Your task to perform on an android device: delete location history Image 0: 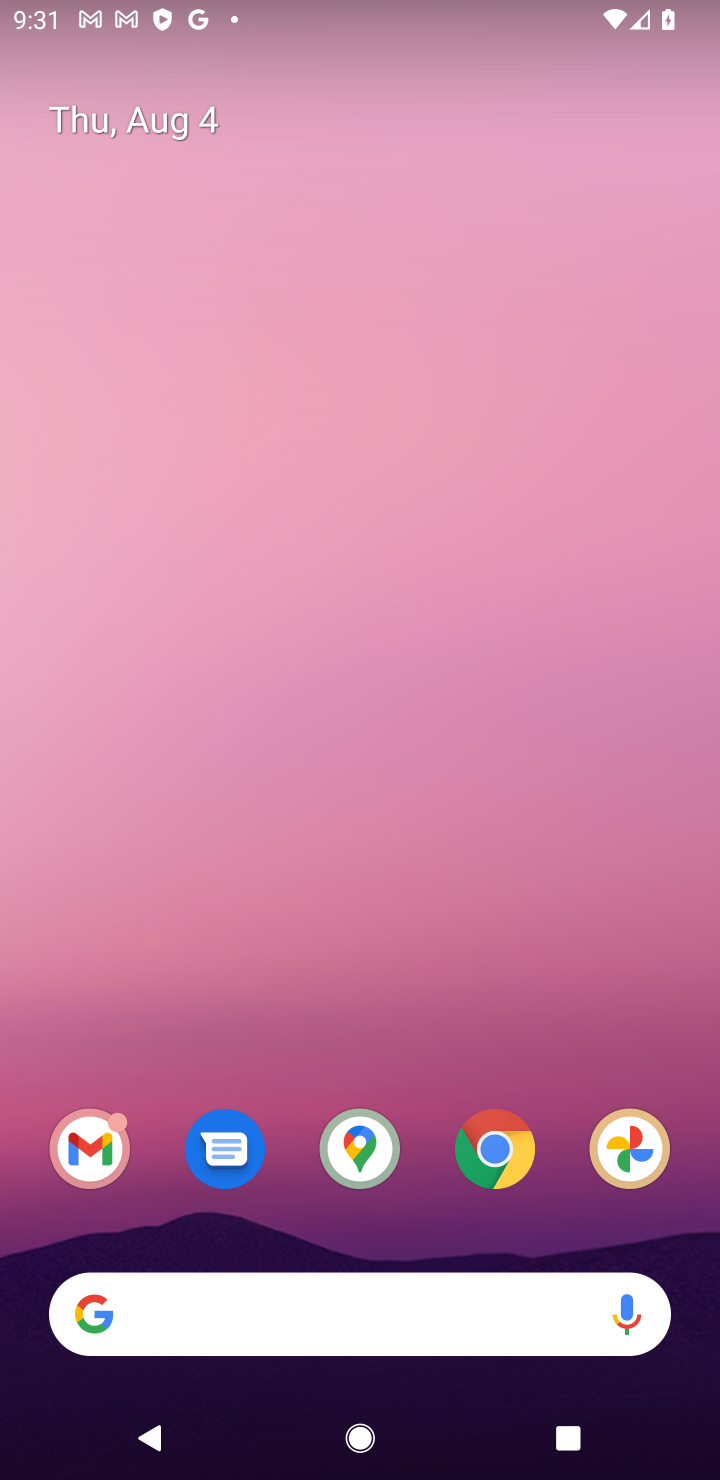
Step 0: click (361, 1149)
Your task to perform on an android device: delete location history Image 1: 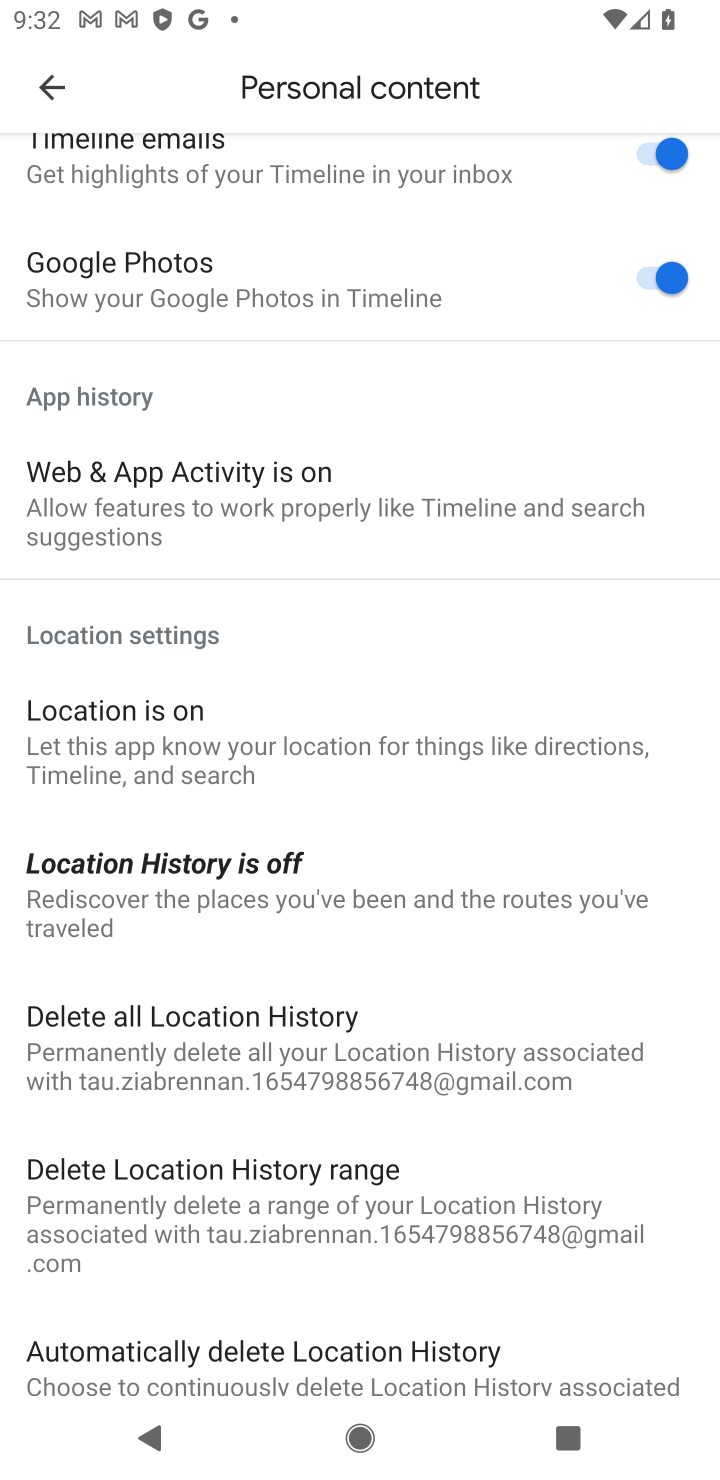
Step 1: click (92, 1005)
Your task to perform on an android device: delete location history Image 2: 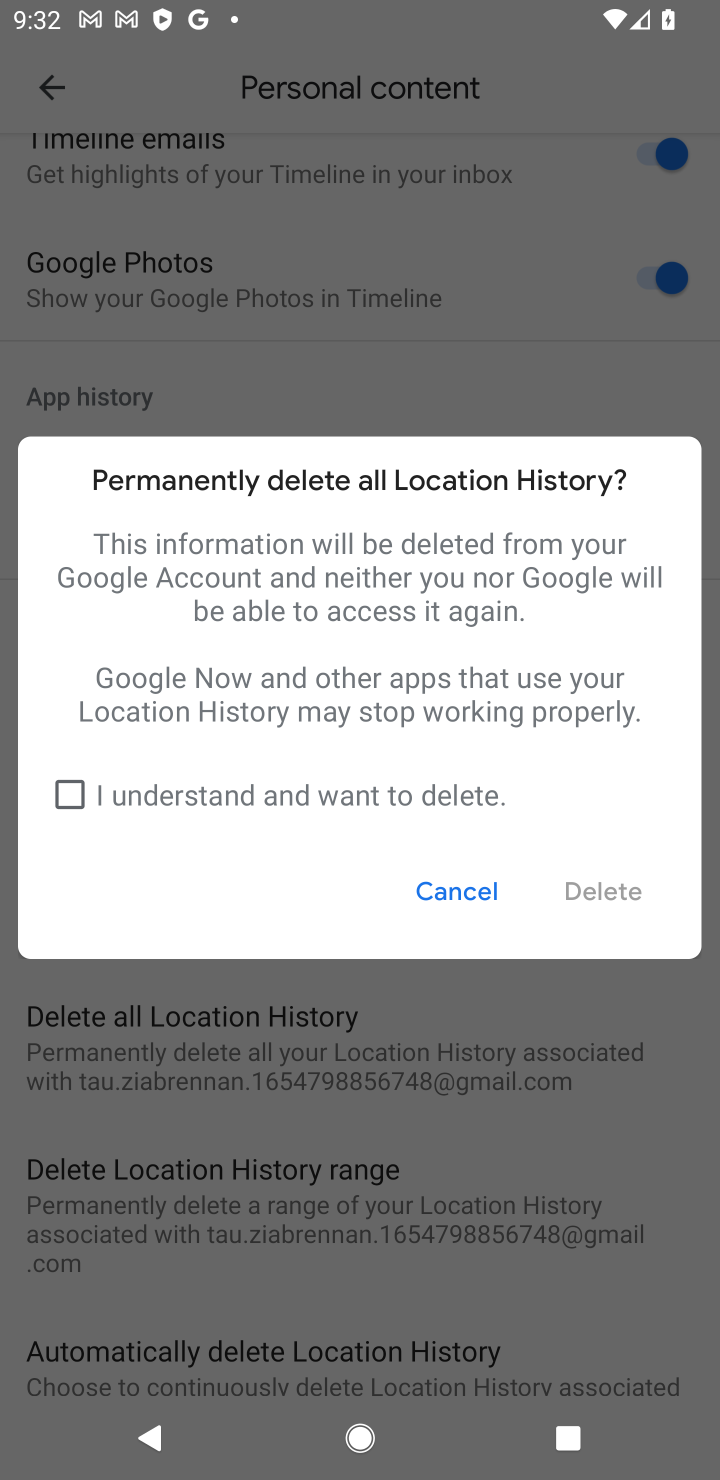
Step 2: click (50, 782)
Your task to perform on an android device: delete location history Image 3: 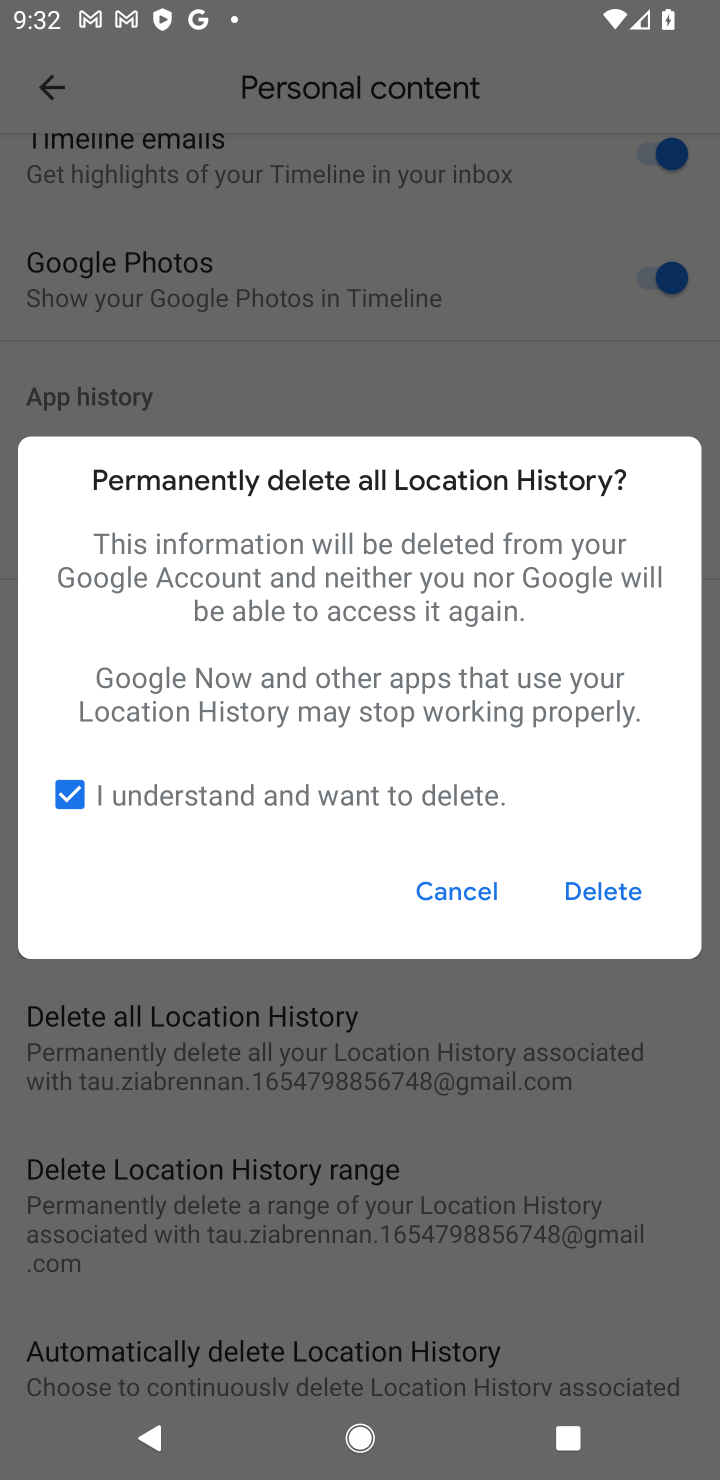
Step 3: click (596, 900)
Your task to perform on an android device: delete location history Image 4: 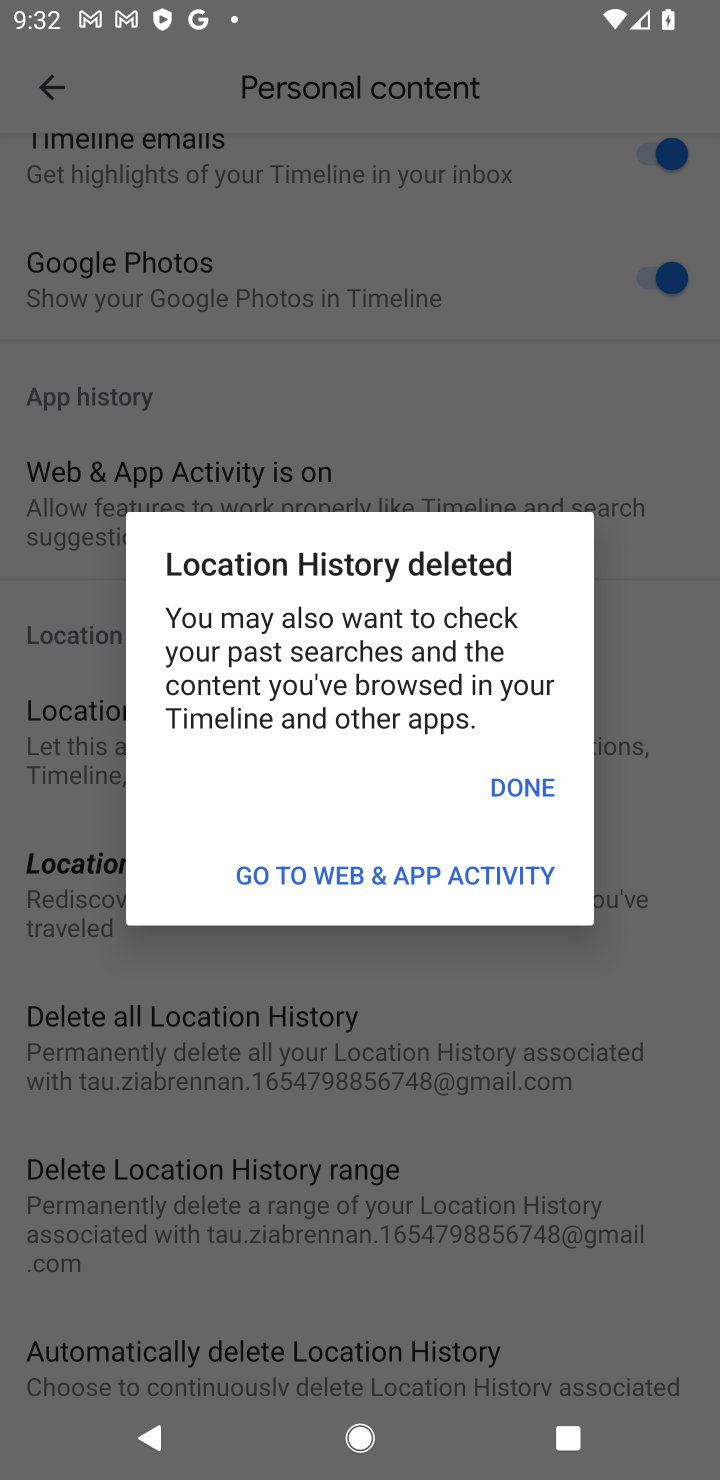
Step 4: click (512, 777)
Your task to perform on an android device: delete location history Image 5: 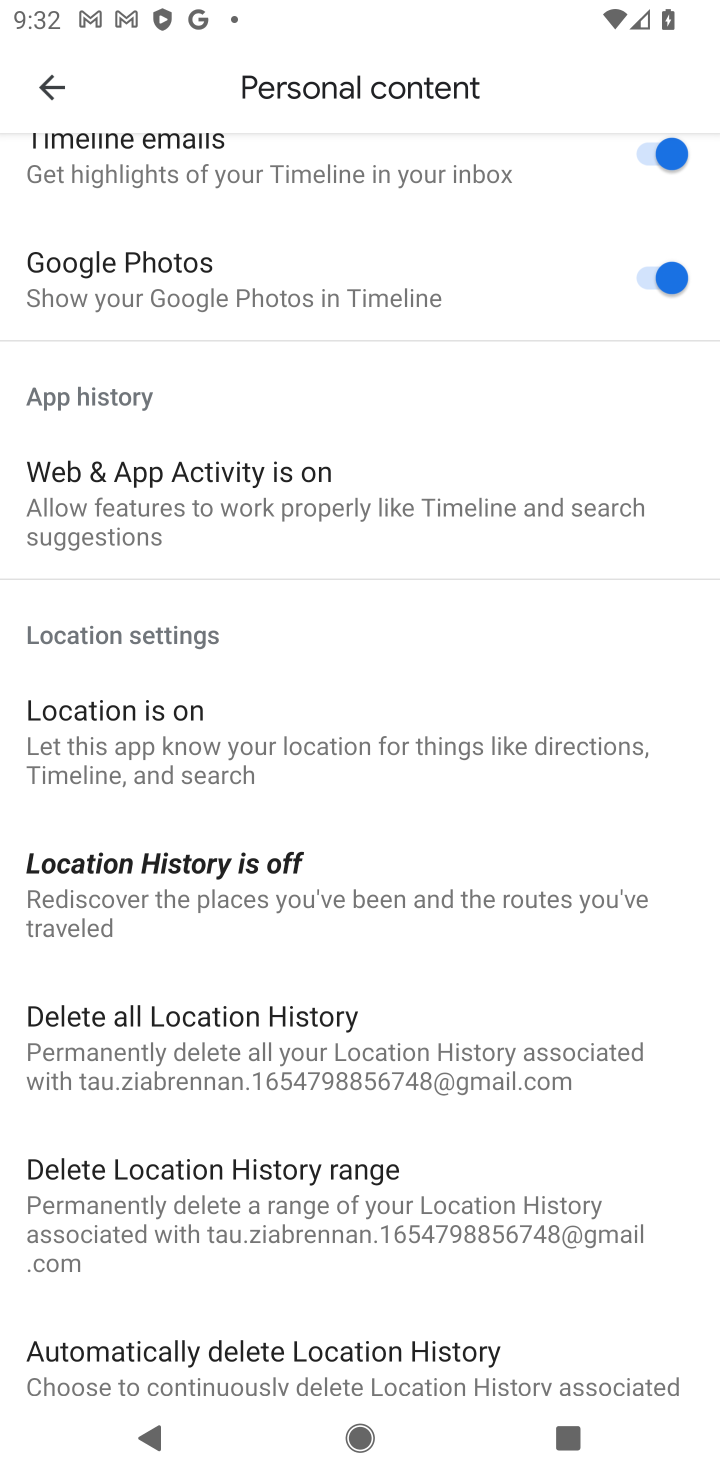
Step 5: task complete